Your task to perform on an android device: Open Google Image 0: 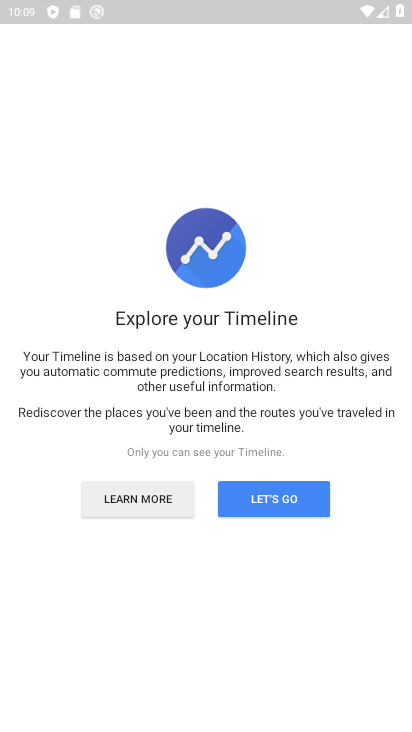
Step 0: press home button
Your task to perform on an android device: Open Google Image 1: 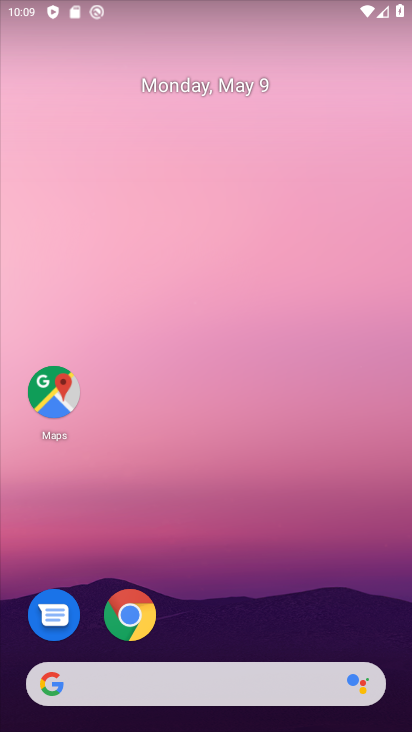
Step 1: drag from (205, 629) to (256, 101)
Your task to perform on an android device: Open Google Image 2: 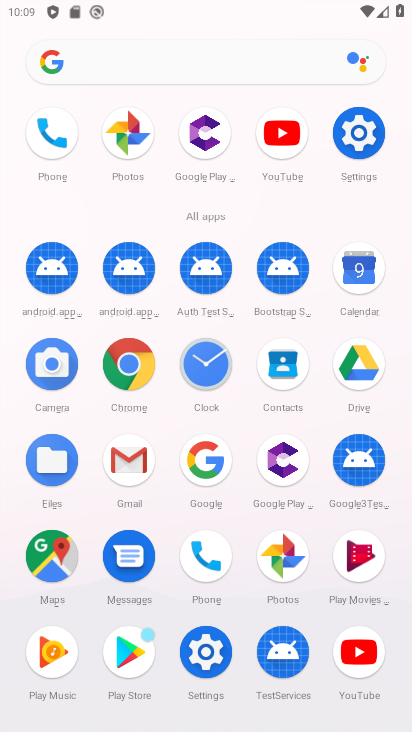
Step 2: click (203, 458)
Your task to perform on an android device: Open Google Image 3: 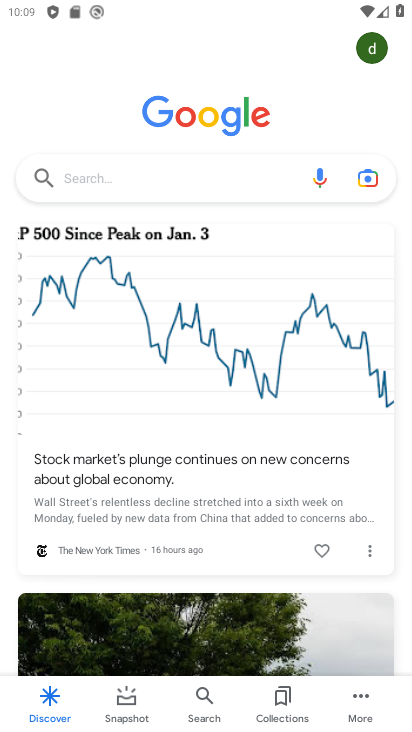
Step 3: task complete